Your task to perform on an android device: When is my next appointment? Image 0: 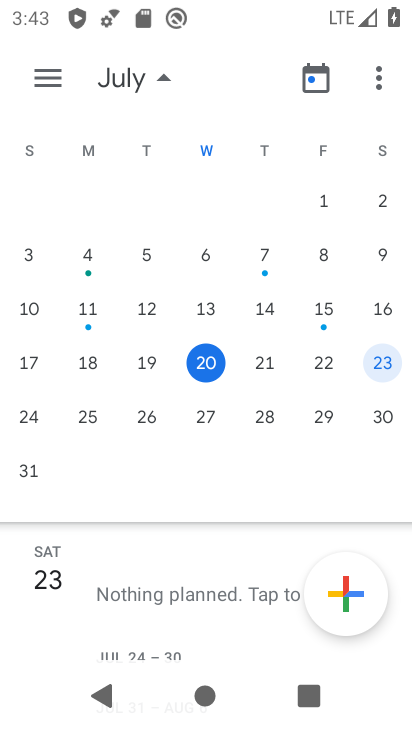
Step 0: press home button
Your task to perform on an android device: When is my next appointment? Image 1: 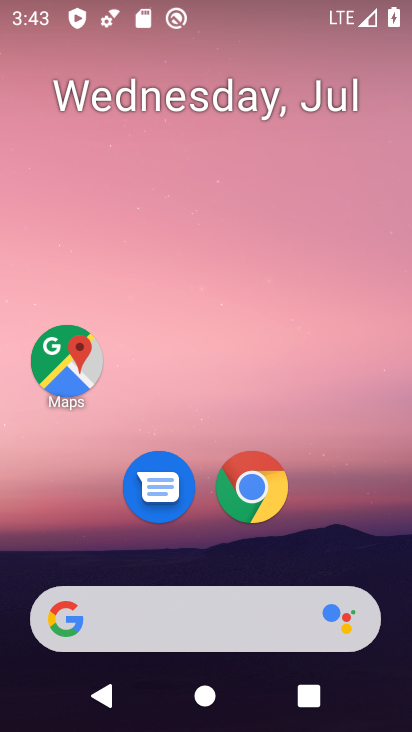
Step 1: drag from (192, 600) to (179, 194)
Your task to perform on an android device: When is my next appointment? Image 2: 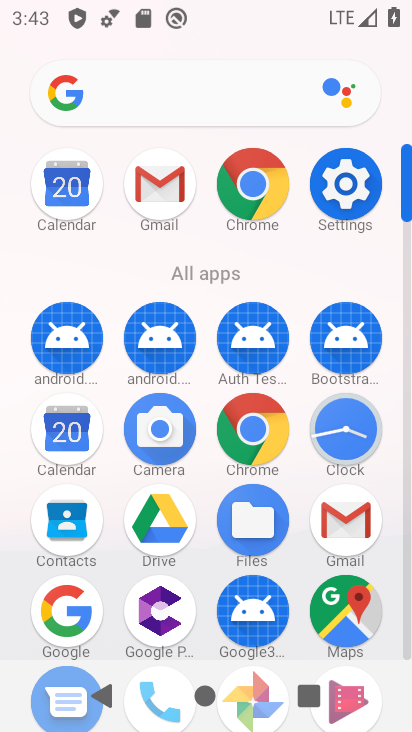
Step 2: click (82, 440)
Your task to perform on an android device: When is my next appointment? Image 3: 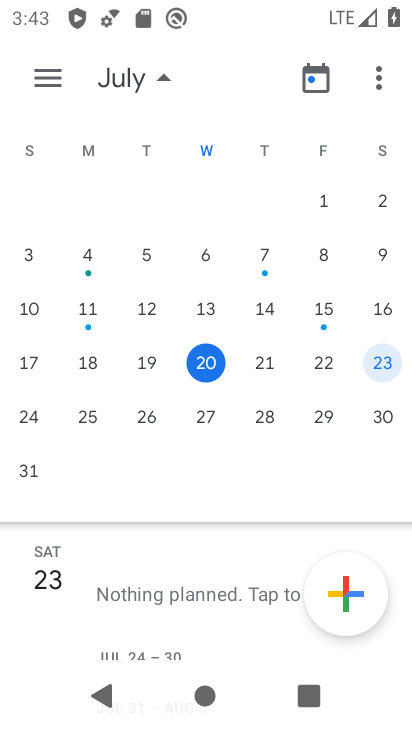
Step 3: click (210, 373)
Your task to perform on an android device: When is my next appointment? Image 4: 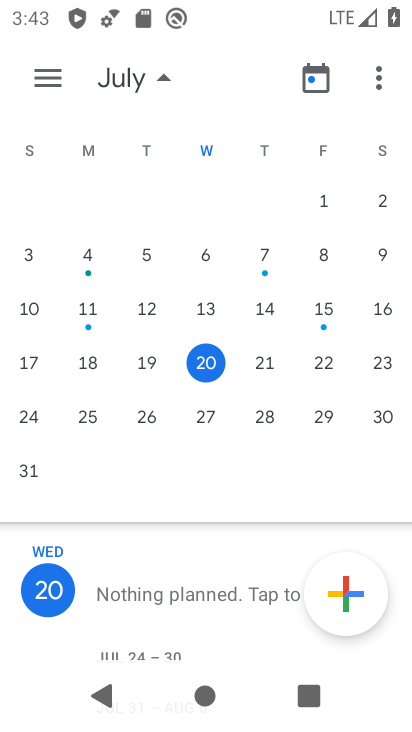
Step 4: click (44, 81)
Your task to perform on an android device: When is my next appointment? Image 5: 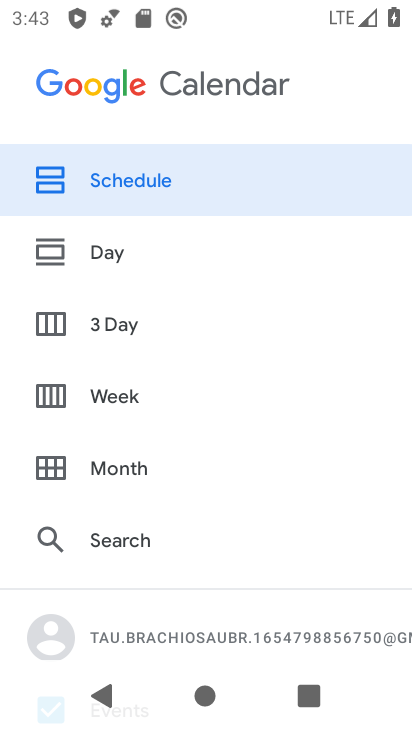
Step 5: drag from (136, 496) to (182, 50)
Your task to perform on an android device: When is my next appointment? Image 6: 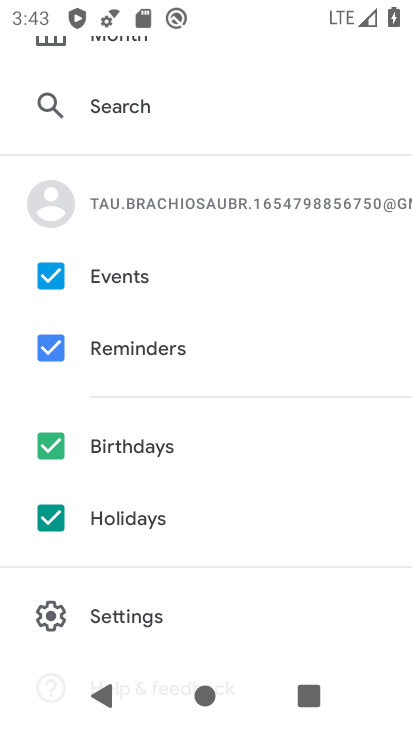
Step 6: click (47, 522)
Your task to perform on an android device: When is my next appointment? Image 7: 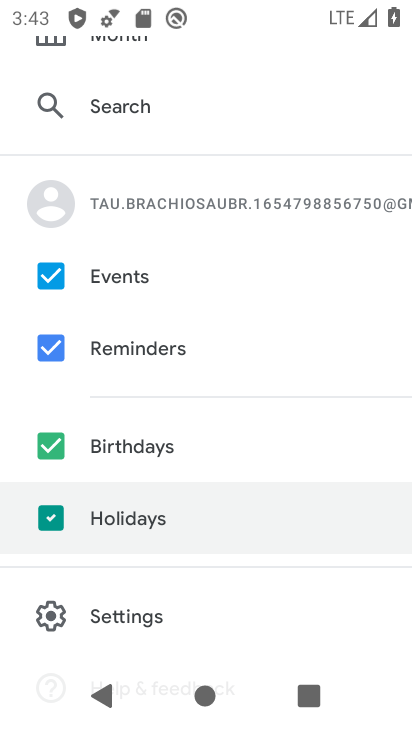
Step 7: click (67, 458)
Your task to perform on an android device: When is my next appointment? Image 8: 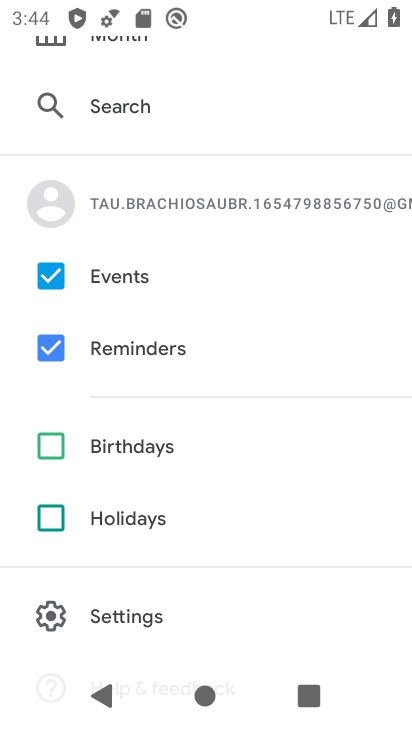
Step 8: task complete